Your task to perform on an android device: Open the Play Movies app and select the watchlist tab. Image 0: 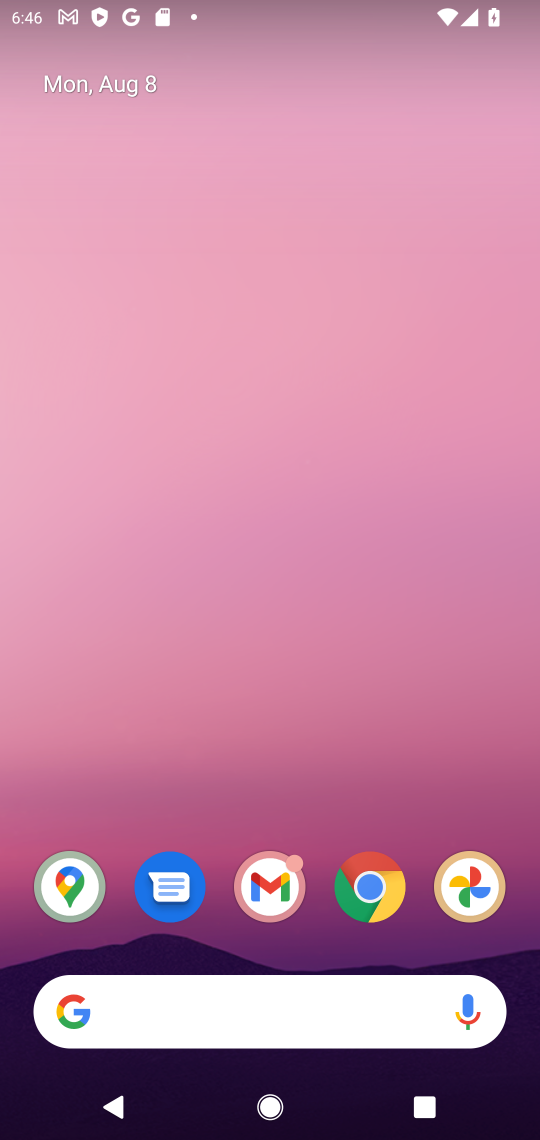
Step 0: drag from (318, 799) to (264, 271)
Your task to perform on an android device: Open the Play Movies app and select the watchlist tab. Image 1: 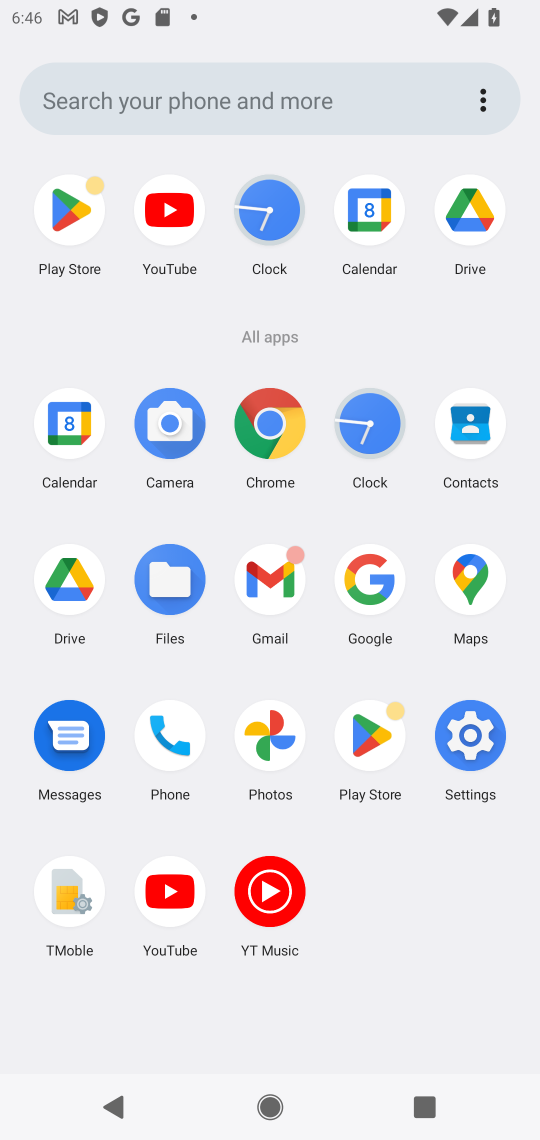
Step 1: task complete